Your task to perform on an android device: change the clock display to digital Image 0: 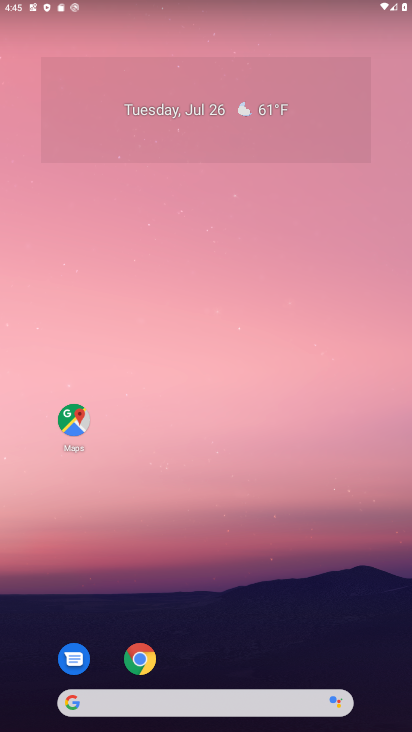
Step 0: drag from (204, 568) to (158, 323)
Your task to perform on an android device: change the clock display to digital Image 1: 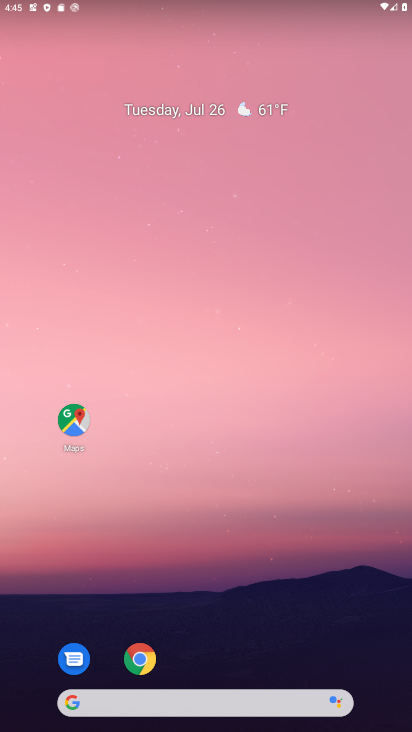
Step 1: drag from (251, 502) to (249, 173)
Your task to perform on an android device: change the clock display to digital Image 2: 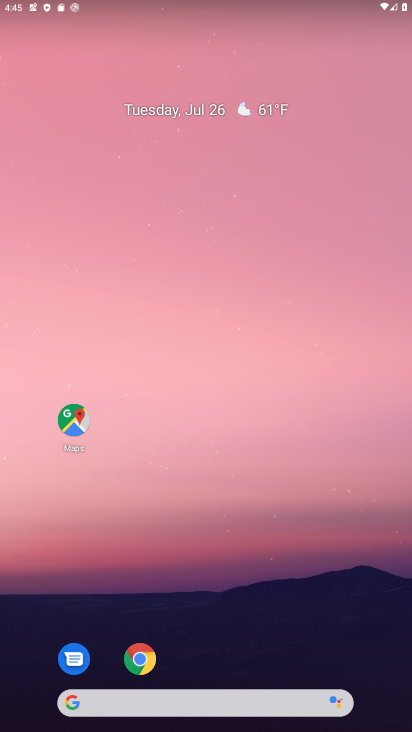
Step 2: drag from (266, 473) to (226, 193)
Your task to perform on an android device: change the clock display to digital Image 3: 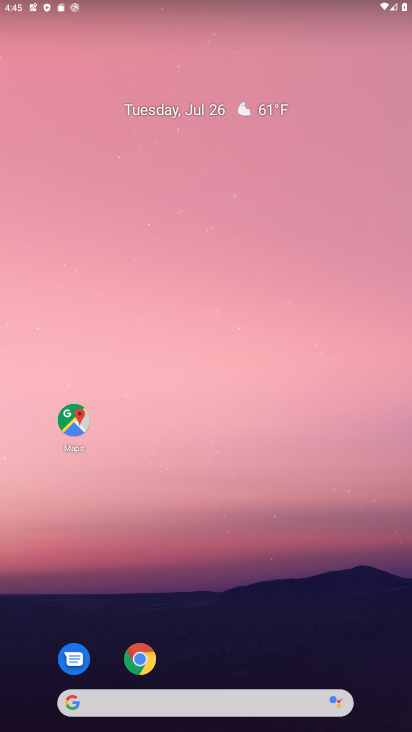
Step 3: drag from (241, 661) to (240, 13)
Your task to perform on an android device: change the clock display to digital Image 4: 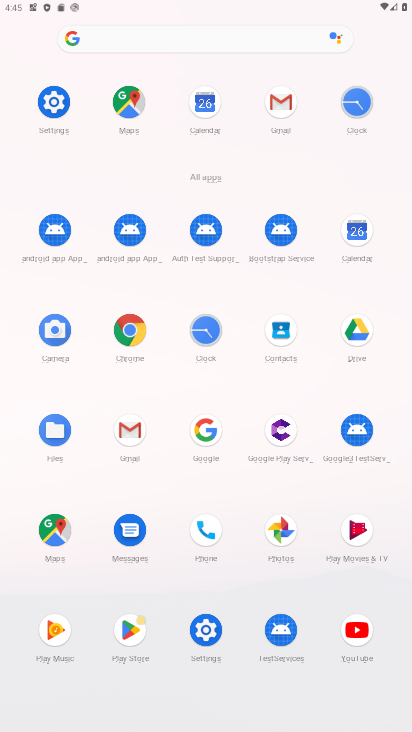
Step 4: click (349, 109)
Your task to perform on an android device: change the clock display to digital Image 5: 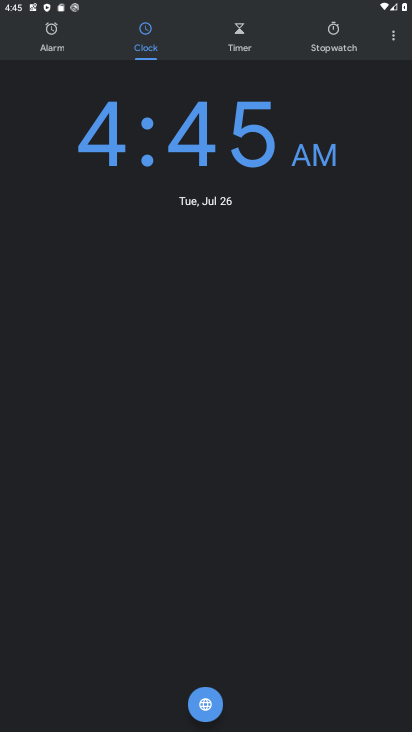
Step 5: task complete